Your task to perform on an android device: turn off translation in the chrome app Image 0: 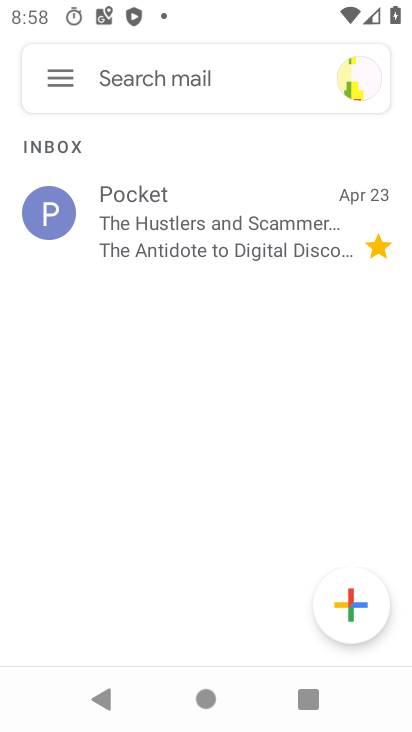
Step 0: press home button
Your task to perform on an android device: turn off translation in the chrome app Image 1: 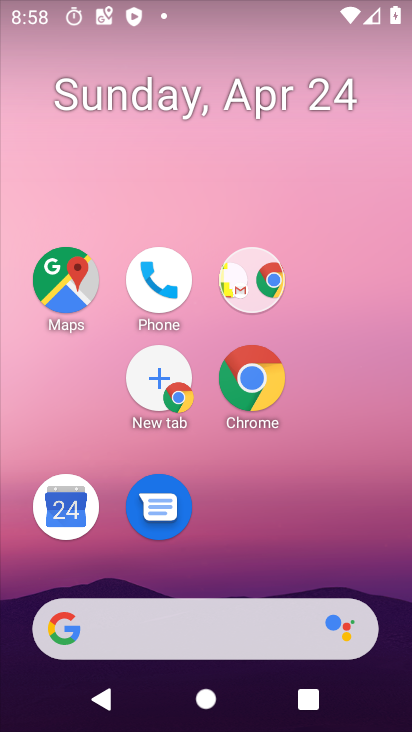
Step 1: drag from (198, 270) to (167, 75)
Your task to perform on an android device: turn off translation in the chrome app Image 2: 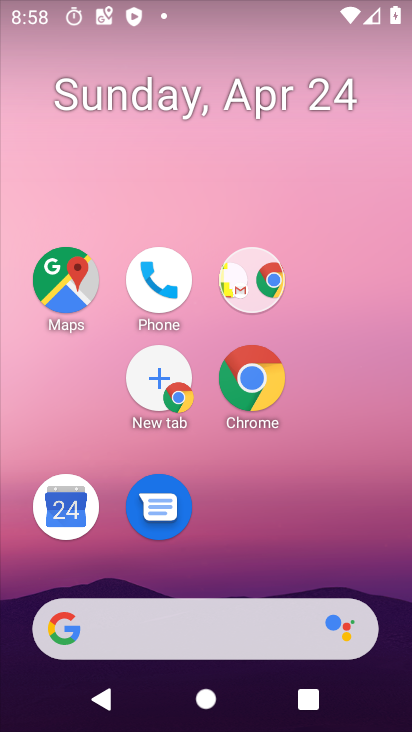
Step 2: drag from (220, 128) to (171, 44)
Your task to perform on an android device: turn off translation in the chrome app Image 3: 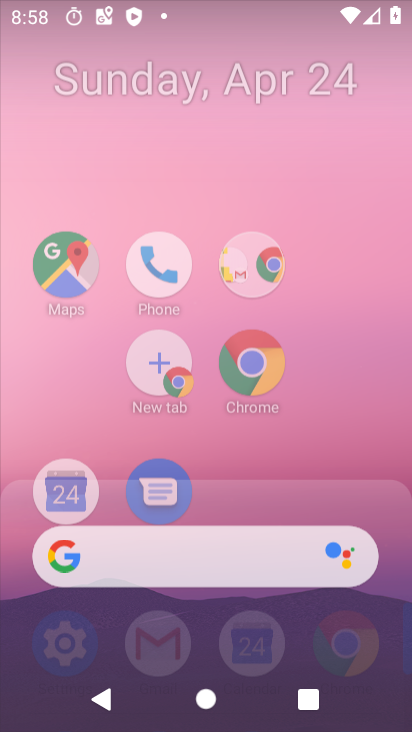
Step 3: drag from (230, 457) to (133, 52)
Your task to perform on an android device: turn off translation in the chrome app Image 4: 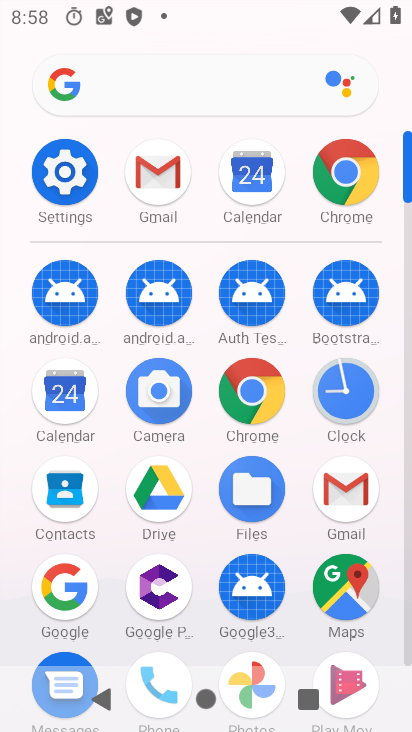
Step 4: click (357, 167)
Your task to perform on an android device: turn off translation in the chrome app Image 5: 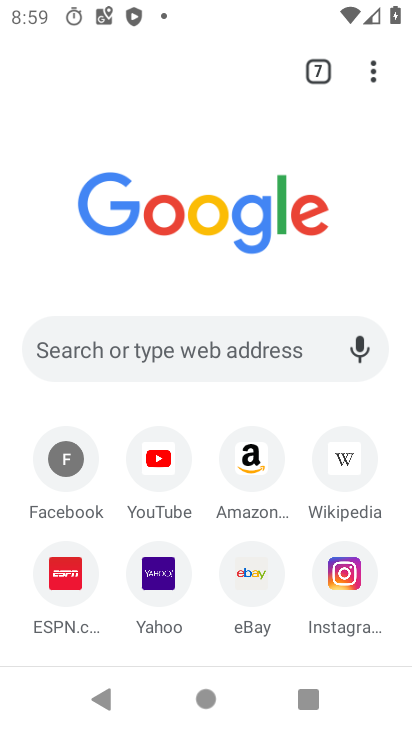
Step 5: drag from (366, 148) to (369, 88)
Your task to perform on an android device: turn off translation in the chrome app Image 6: 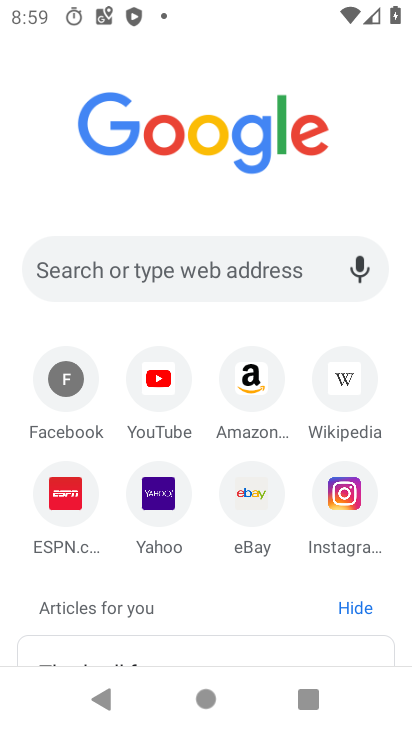
Step 6: click (385, 64)
Your task to perform on an android device: turn off translation in the chrome app Image 7: 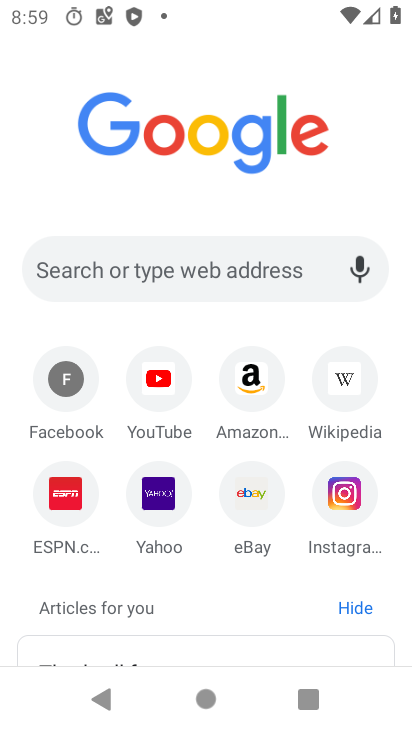
Step 7: click (370, 76)
Your task to perform on an android device: turn off translation in the chrome app Image 8: 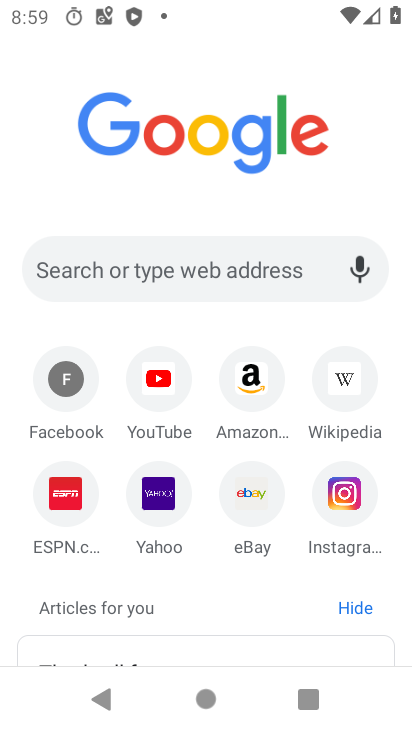
Step 8: click (370, 76)
Your task to perform on an android device: turn off translation in the chrome app Image 9: 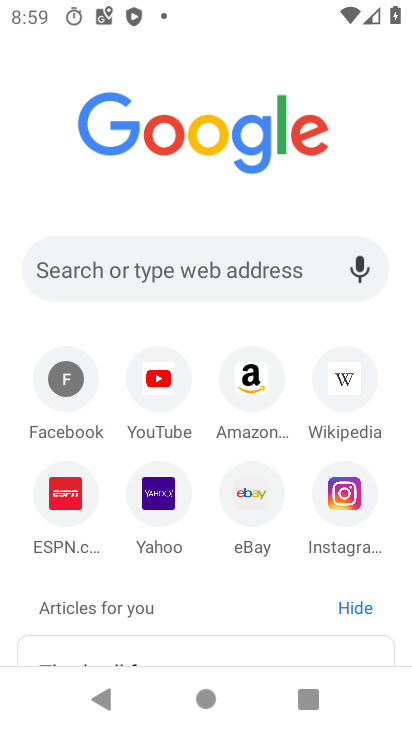
Step 9: click (370, 76)
Your task to perform on an android device: turn off translation in the chrome app Image 10: 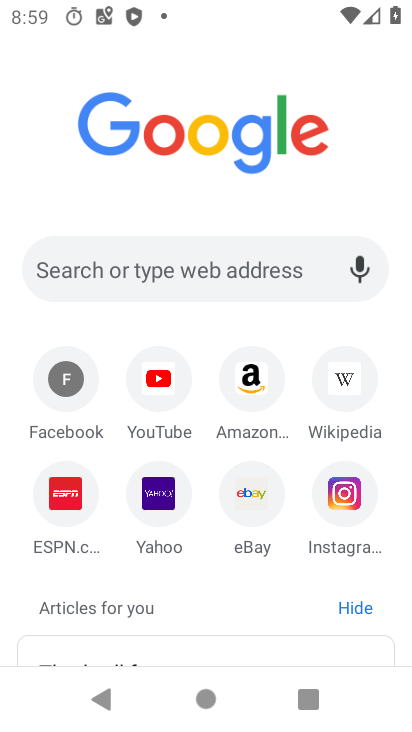
Step 10: click (152, 246)
Your task to perform on an android device: turn off translation in the chrome app Image 11: 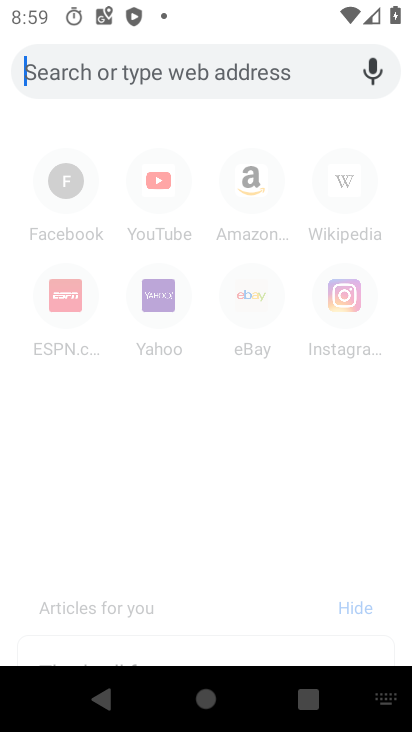
Step 11: press home button
Your task to perform on an android device: turn off translation in the chrome app Image 12: 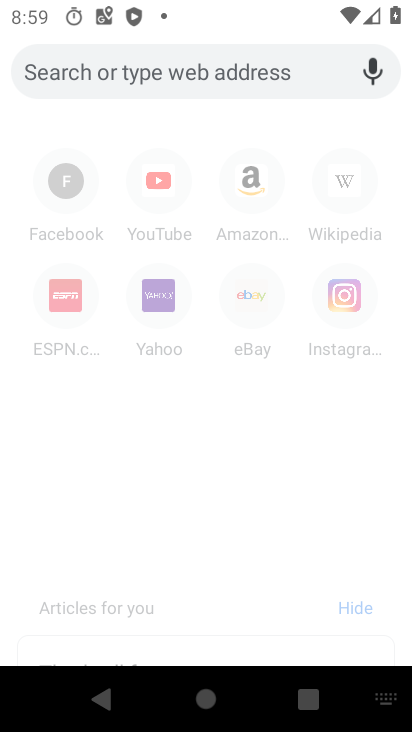
Step 12: press home button
Your task to perform on an android device: turn off translation in the chrome app Image 13: 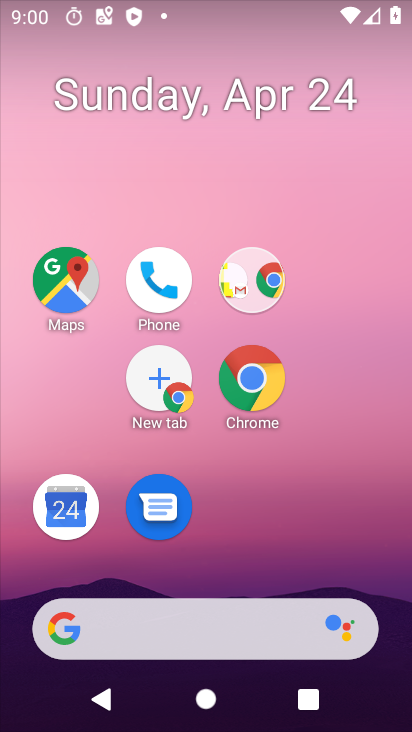
Step 13: drag from (156, 216) to (192, 4)
Your task to perform on an android device: turn off translation in the chrome app Image 14: 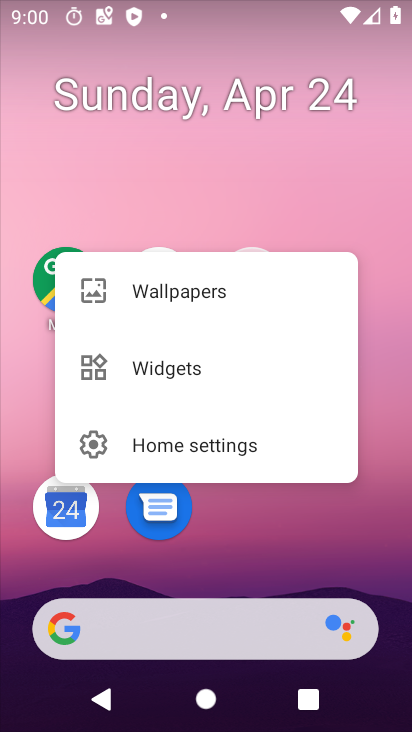
Step 14: click (353, 543)
Your task to perform on an android device: turn off translation in the chrome app Image 15: 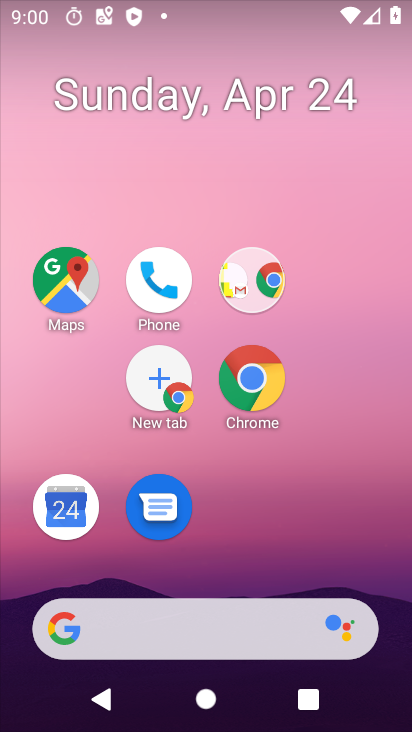
Step 15: drag from (278, 423) to (245, 153)
Your task to perform on an android device: turn off translation in the chrome app Image 16: 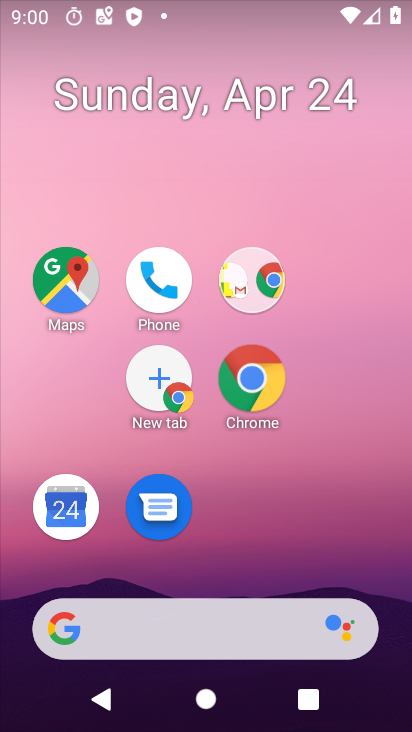
Step 16: drag from (257, 346) to (217, 19)
Your task to perform on an android device: turn off translation in the chrome app Image 17: 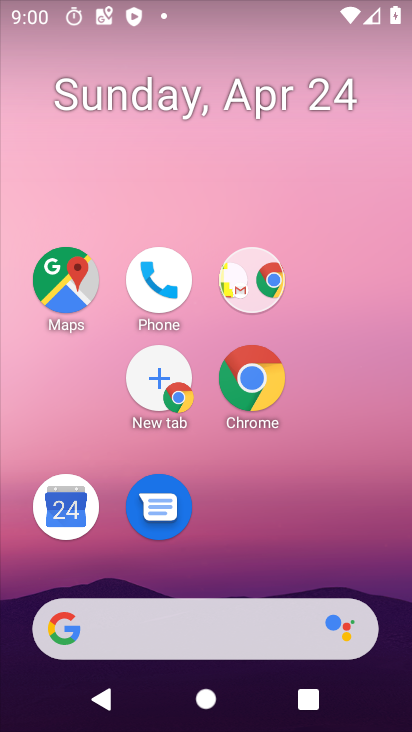
Step 17: drag from (235, 476) to (175, 89)
Your task to perform on an android device: turn off translation in the chrome app Image 18: 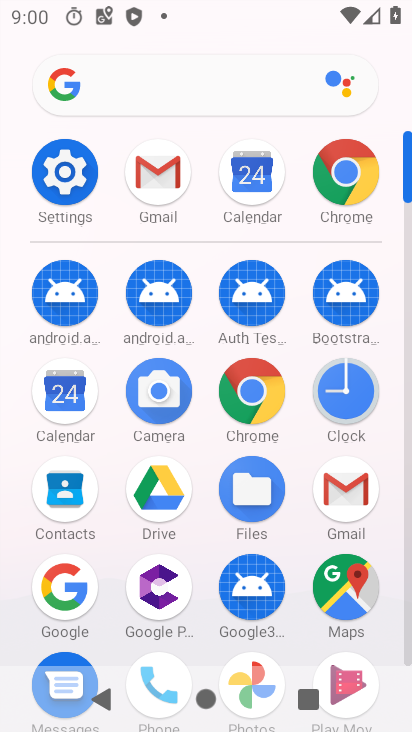
Step 18: click (339, 169)
Your task to perform on an android device: turn off translation in the chrome app Image 19: 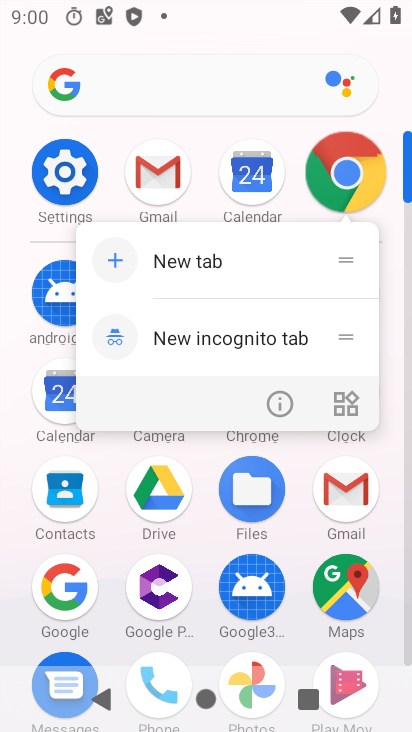
Step 19: click (339, 168)
Your task to perform on an android device: turn off translation in the chrome app Image 20: 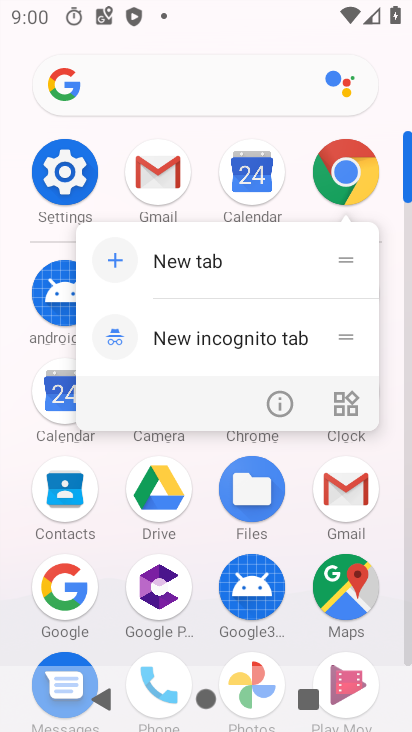
Step 20: click (339, 168)
Your task to perform on an android device: turn off translation in the chrome app Image 21: 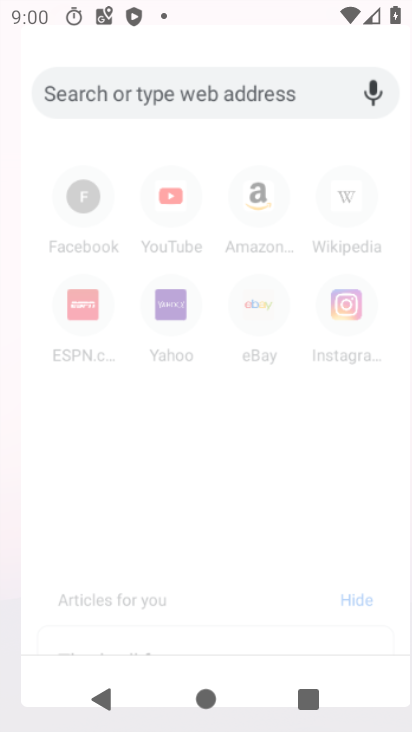
Step 21: click (339, 168)
Your task to perform on an android device: turn off translation in the chrome app Image 22: 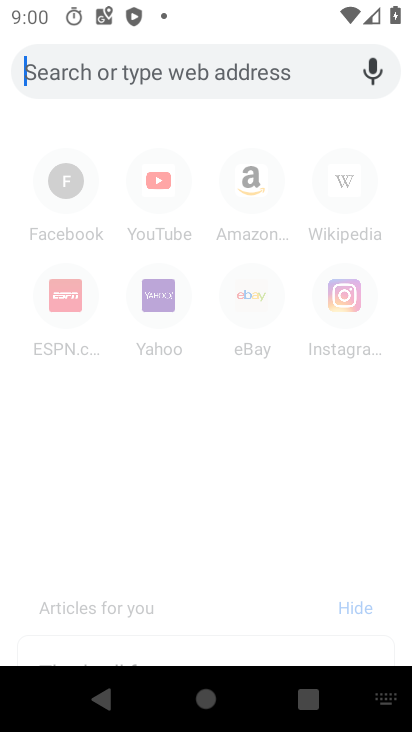
Step 22: click (339, 168)
Your task to perform on an android device: turn off translation in the chrome app Image 23: 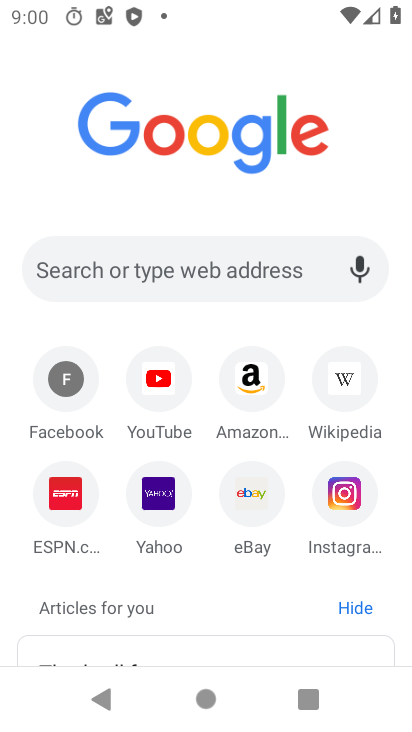
Step 23: drag from (342, 101) to (259, 576)
Your task to perform on an android device: turn off translation in the chrome app Image 24: 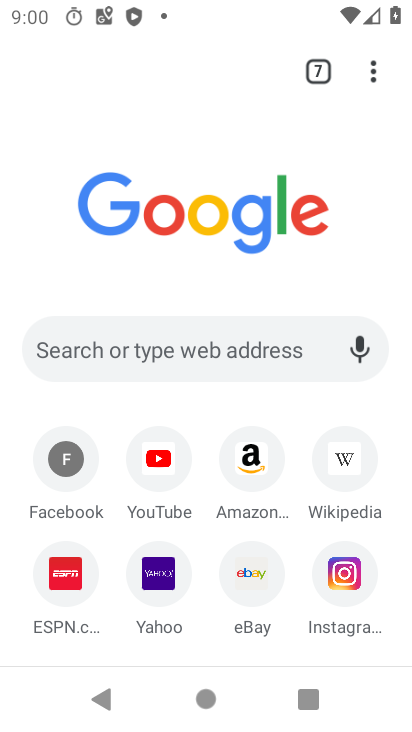
Step 24: click (373, 75)
Your task to perform on an android device: turn off translation in the chrome app Image 25: 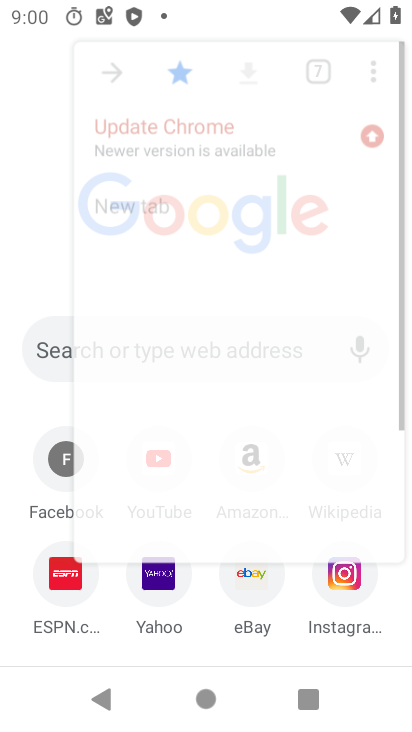
Step 25: drag from (373, 76) to (114, 510)
Your task to perform on an android device: turn off translation in the chrome app Image 26: 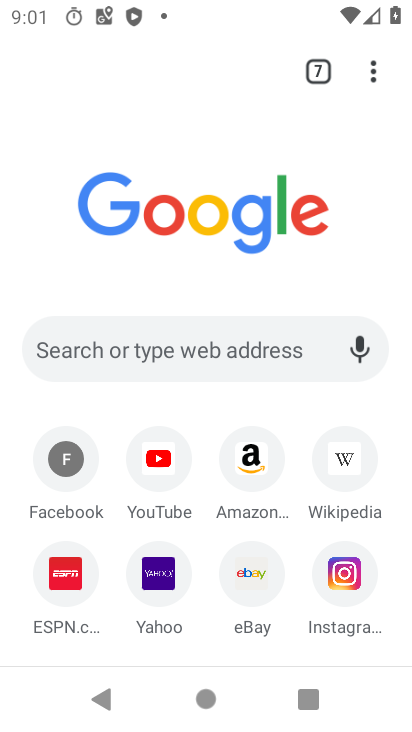
Step 26: click (117, 508)
Your task to perform on an android device: turn off translation in the chrome app Image 27: 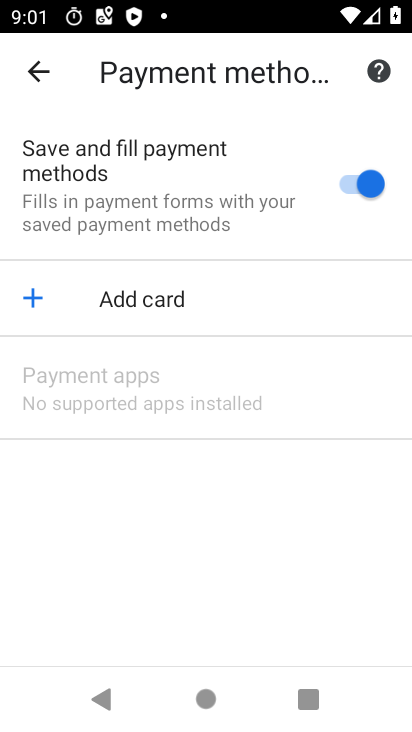
Step 27: click (38, 66)
Your task to perform on an android device: turn off translation in the chrome app Image 28: 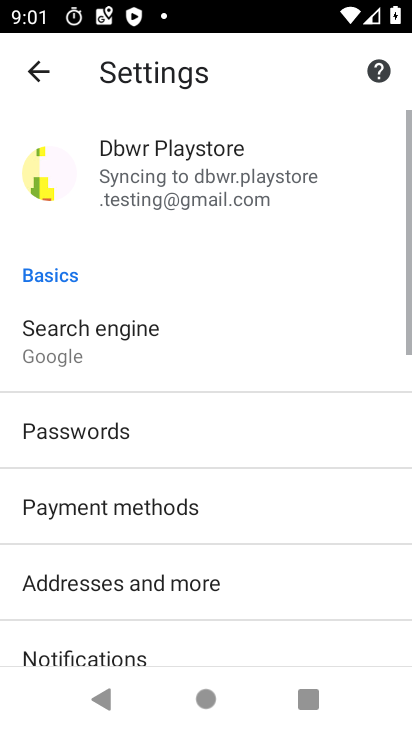
Step 28: drag from (189, 554) to (180, 182)
Your task to perform on an android device: turn off translation in the chrome app Image 29: 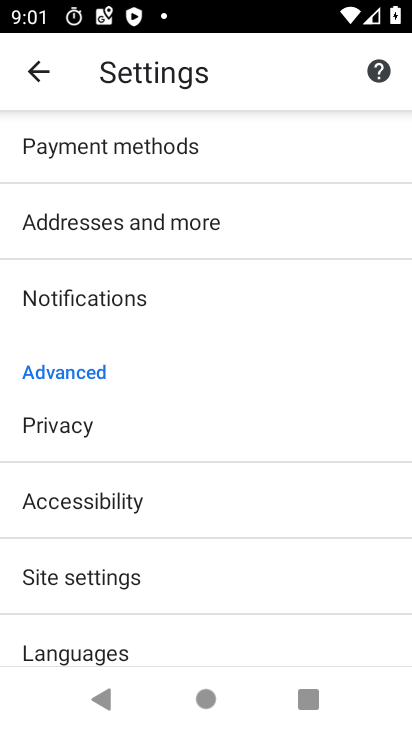
Step 29: drag from (209, 482) to (245, 69)
Your task to perform on an android device: turn off translation in the chrome app Image 30: 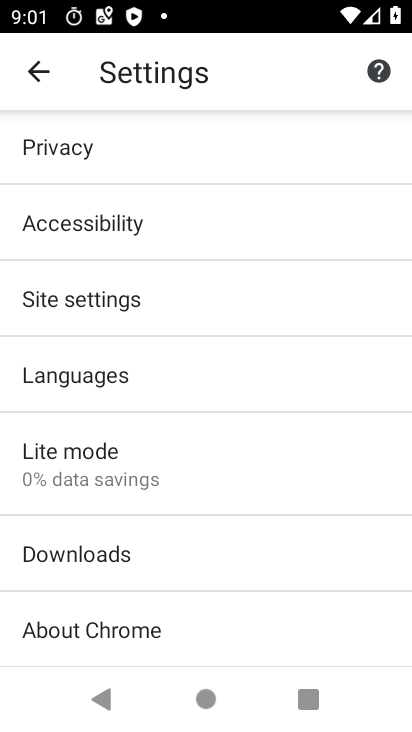
Step 30: click (68, 379)
Your task to perform on an android device: turn off translation in the chrome app Image 31: 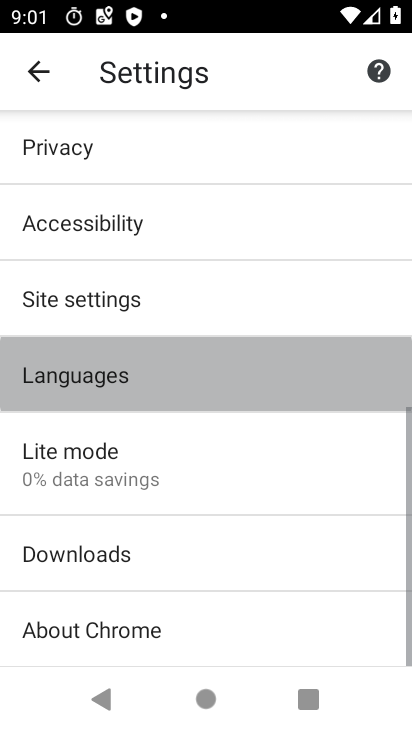
Step 31: click (67, 378)
Your task to perform on an android device: turn off translation in the chrome app Image 32: 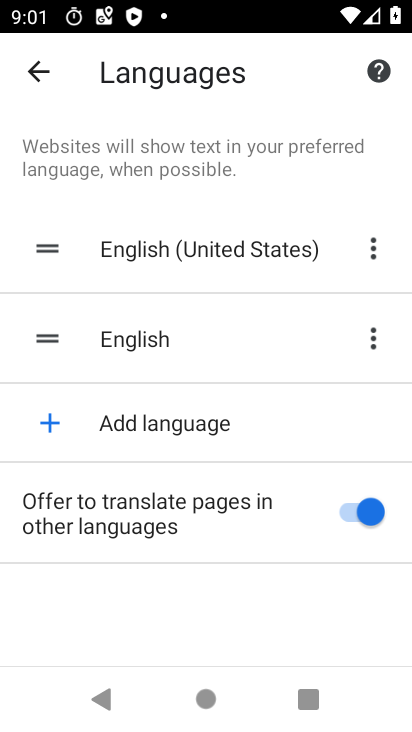
Step 32: click (372, 509)
Your task to perform on an android device: turn off translation in the chrome app Image 33: 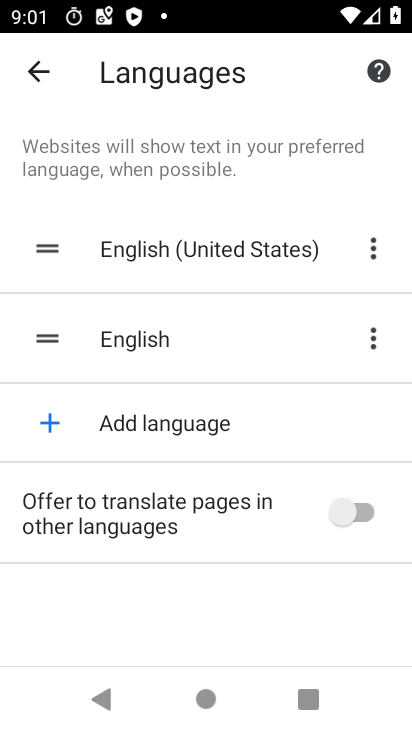
Step 33: task complete